Your task to perform on an android device: turn vacation reply on in the gmail app Image 0: 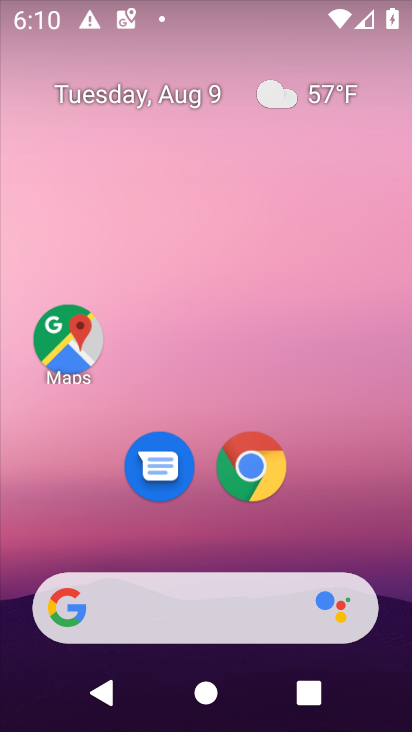
Step 0: drag from (191, 381) to (190, 57)
Your task to perform on an android device: turn vacation reply on in the gmail app Image 1: 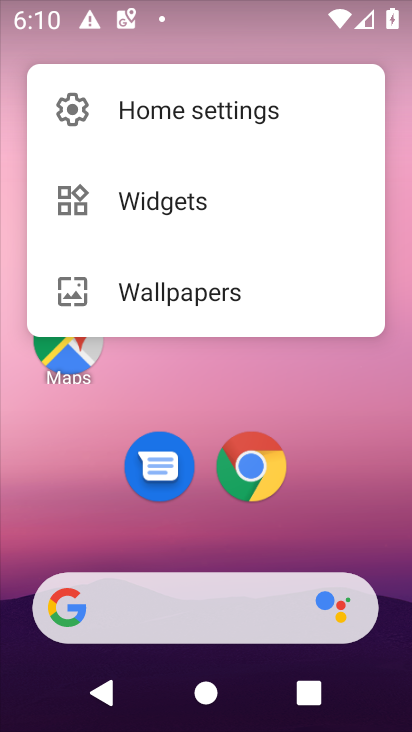
Step 1: drag from (201, 540) to (216, 136)
Your task to perform on an android device: turn vacation reply on in the gmail app Image 2: 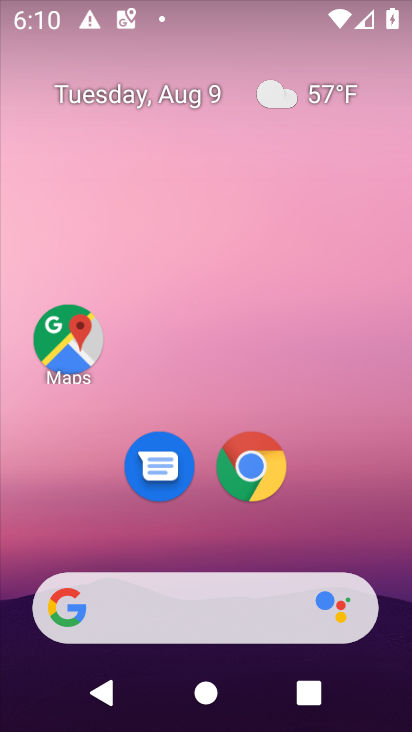
Step 2: drag from (208, 526) to (92, 0)
Your task to perform on an android device: turn vacation reply on in the gmail app Image 3: 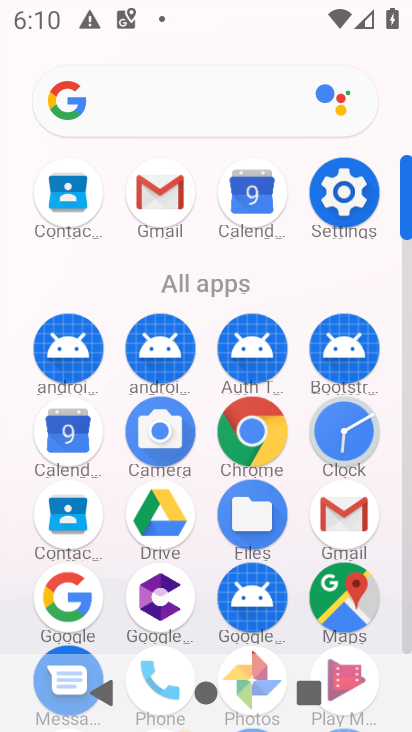
Step 3: click (157, 203)
Your task to perform on an android device: turn vacation reply on in the gmail app Image 4: 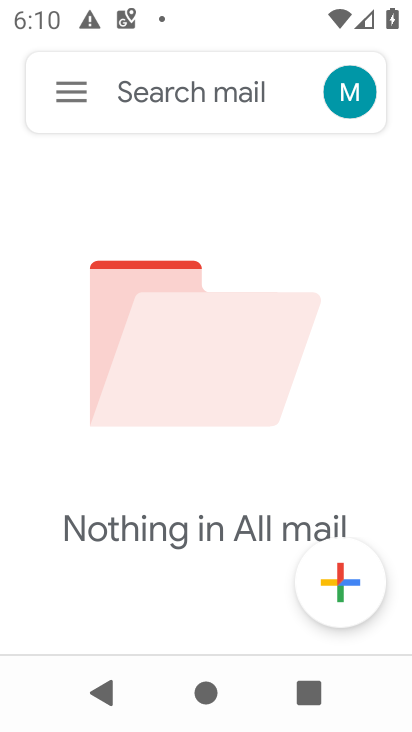
Step 4: click (66, 89)
Your task to perform on an android device: turn vacation reply on in the gmail app Image 5: 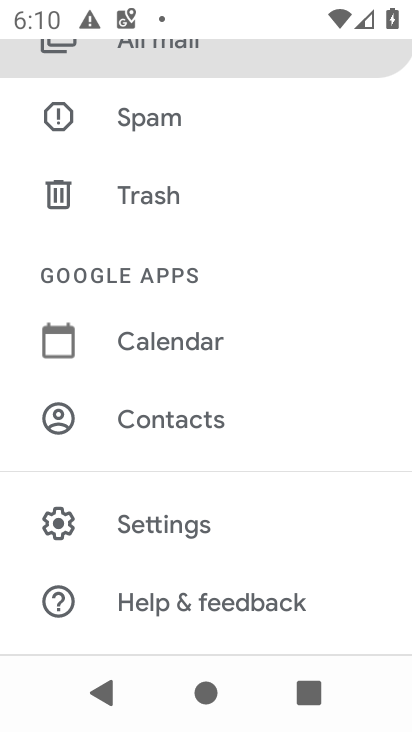
Step 5: click (159, 527)
Your task to perform on an android device: turn vacation reply on in the gmail app Image 6: 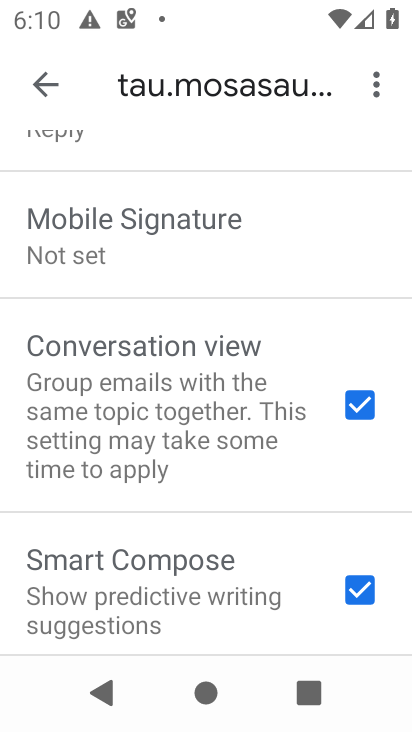
Step 6: drag from (196, 494) to (196, 280)
Your task to perform on an android device: turn vacation reply on in the gmail app Image 7: 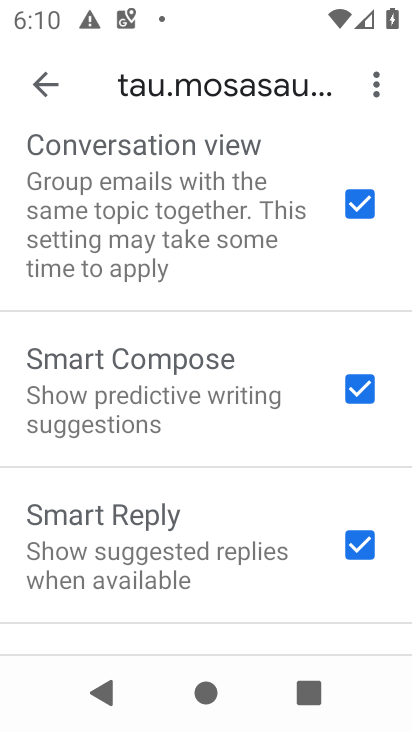
Step 7: drag from (186, 547) to (189, 206)
Your task to perform on an android device: turn vacation reply on in the gmail app Image 8: 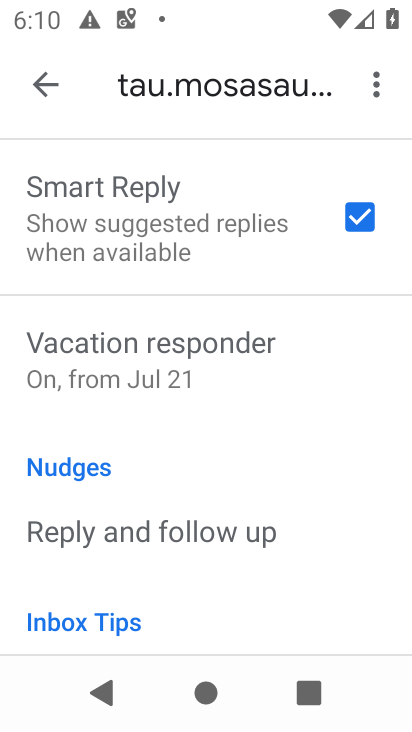
Step 8: click (135, 348)
Your task to perform on an android device: turn vacation reply on in the gmail app Image 9: 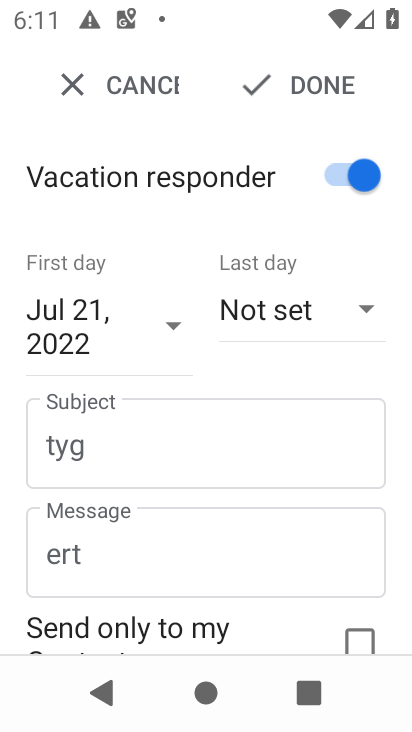
Step 9: click (316, 83)
Your task to perform on an android device: turn vacation reply on in the gmail app Image 10: 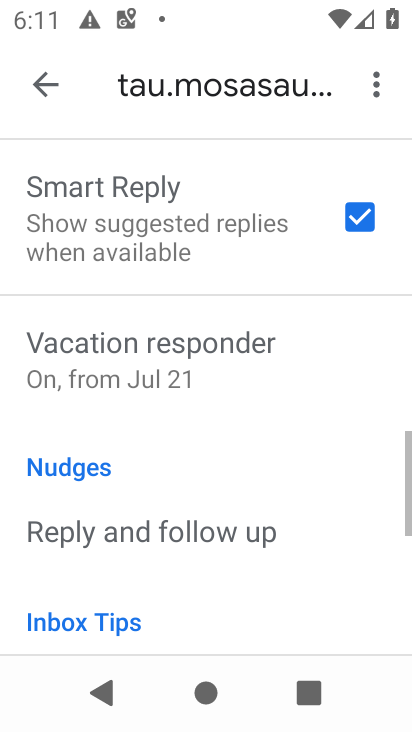
Step 10: task complete